Your task to perform on an android device: search for starred emails in the gmail app Image 0: 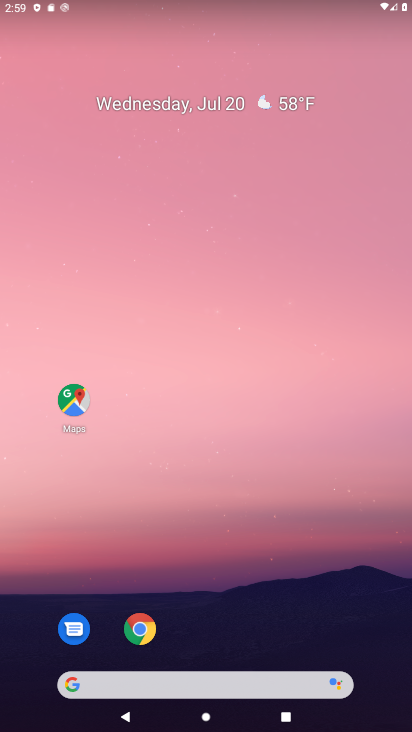
Step 0: drag from (259, 659) to (264, 276)
Your task to perform on an android device: search for starred emails in the gmail app Image 1: 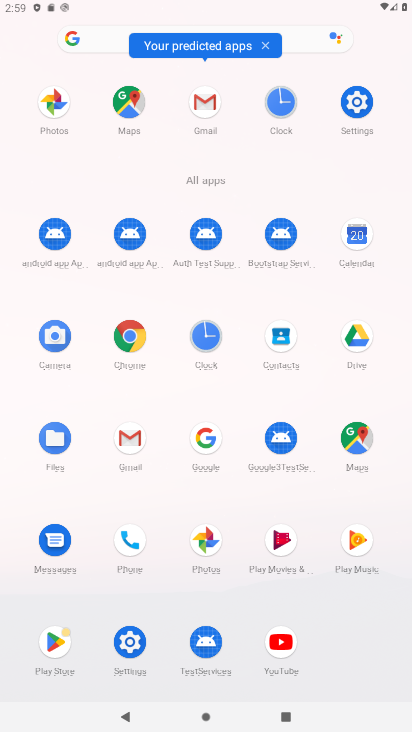
Step 1: click (121, 440)
Your task to perform on an android device: search for starred emails in the gmail app Image 2: 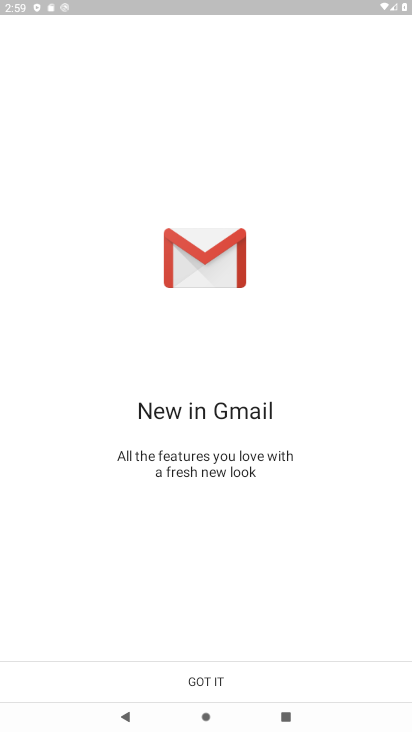
Step 2: click (239, 682)
Your task to perform on an android device: search for starred emails in the gmail app Image 3: 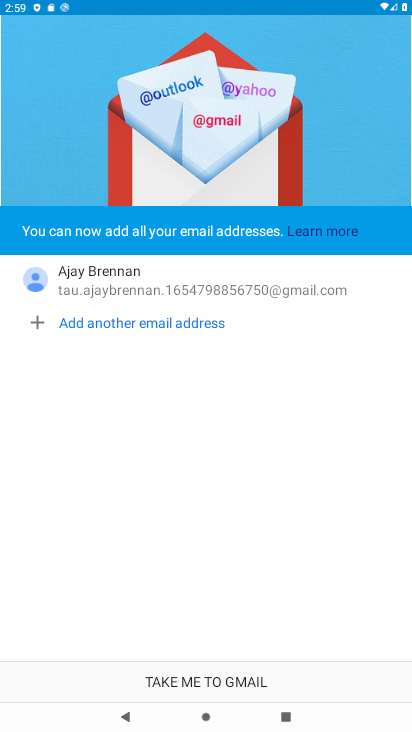
Step 3: click (240, 678)
Your task to perform on an android device: search for starred emails in the gmail app Image 4: 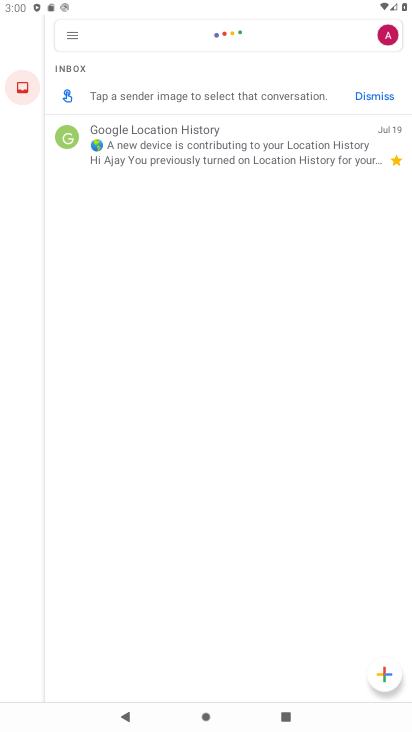
Step 4: click (74, 35)
Your task to perform on an android device: search for starred emails in the gmail app Image 5: 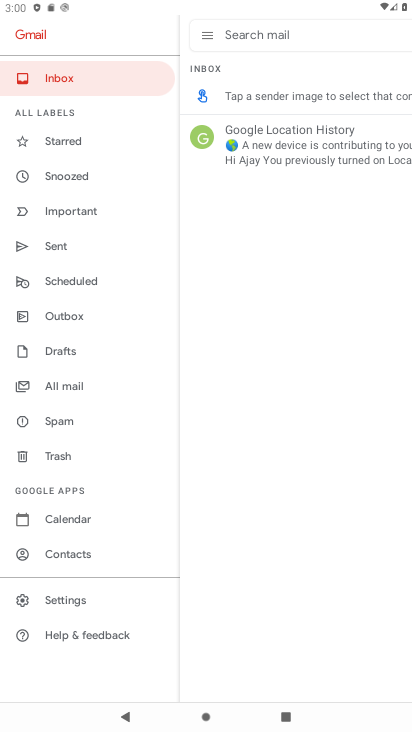
Step 5: click (70, 147)
Your task to perform on an android device: search for starred emails in the gmail app Image 6: 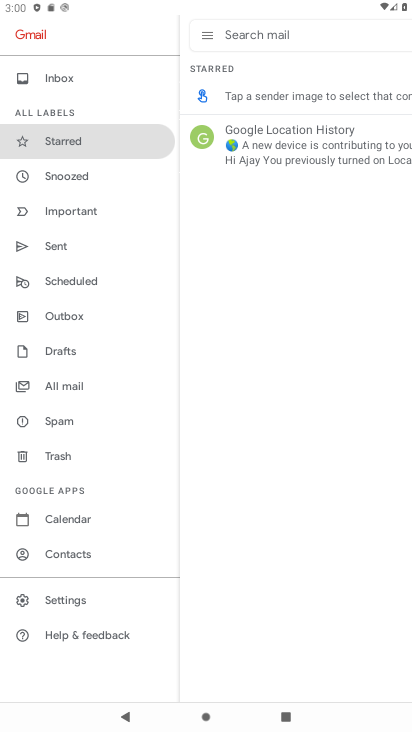
Step 6: task complete